Your task to perform on an android device: Open location settings Image 0: 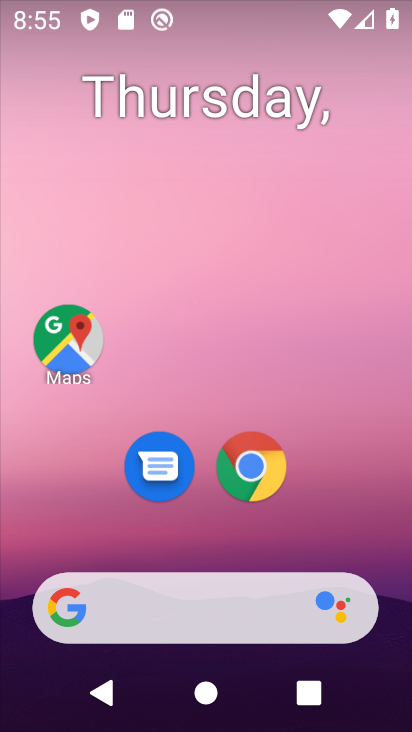
Step 0: press home button
Your task to perform on an android device: Open location settings Image 1: 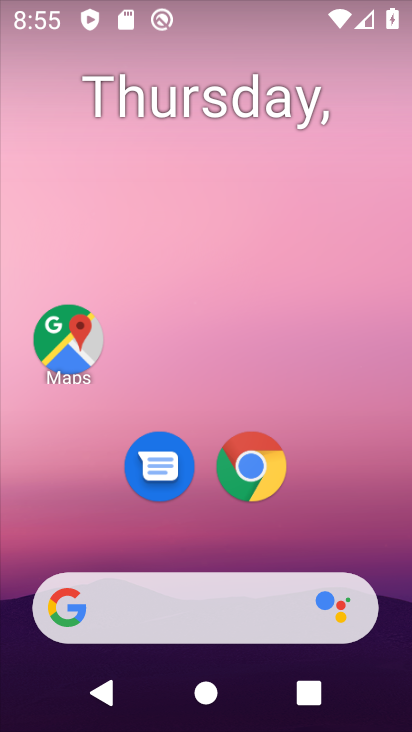
Step 1: drag from (184, 585) to (294, 261)
Your task to perform on an android device: Open location settings Image 2: 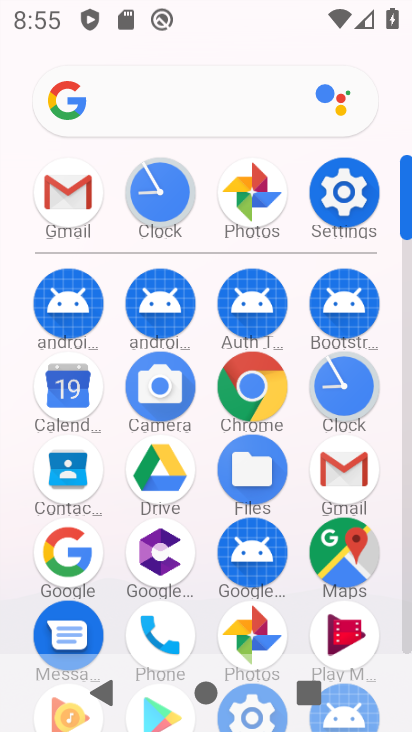
Step 2: click (335, 189)
Your task to perform on an android device: Open location settings Image 3: 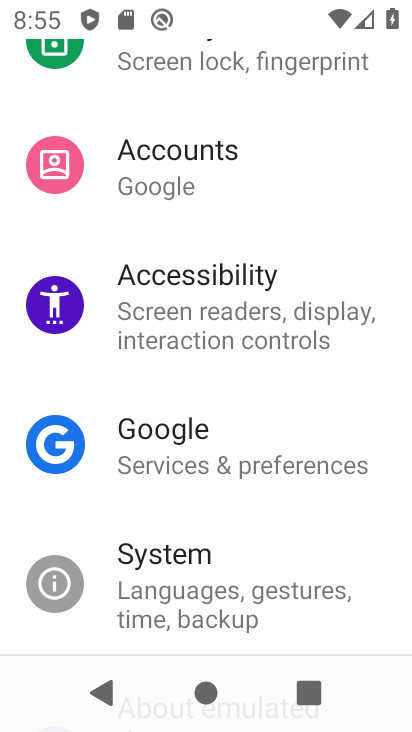
Step 3: drag from (300, 212) to (277, 626)
Your task to perform on an android device: Open location settings Image 4: 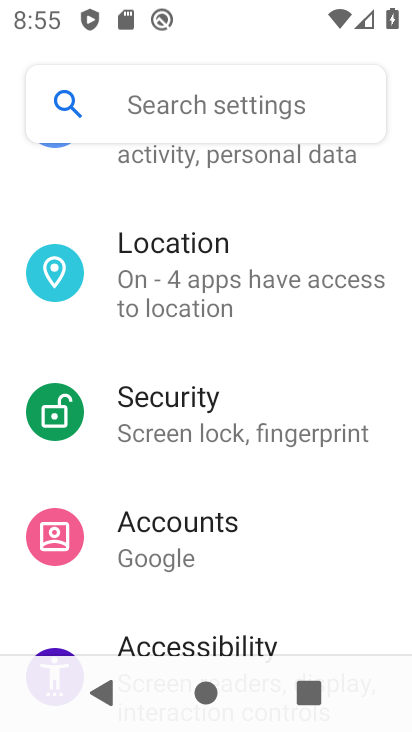
Step 4: click (187, 267)
Your task to perform on an android device: Open location settings Image 5: 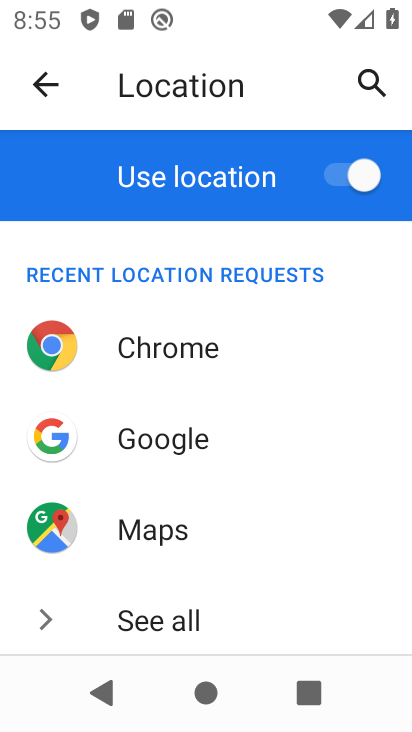
Step 5: task complete